Your task to perform on an android device: change alarm snooze length Image 0: 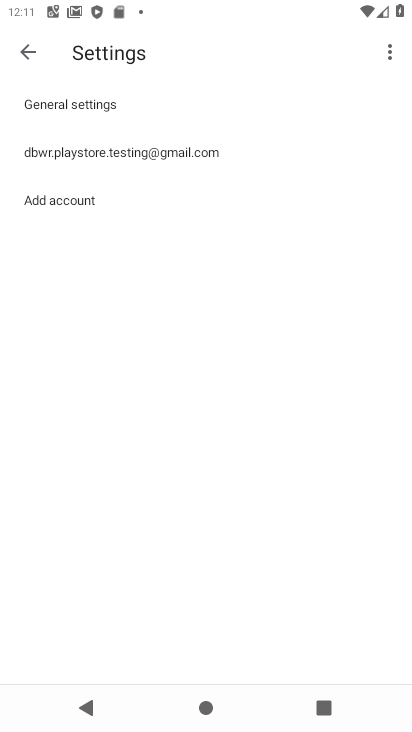
Step 0: press back button
Your task to perform on an android device: change alarm snooze length Image 1: 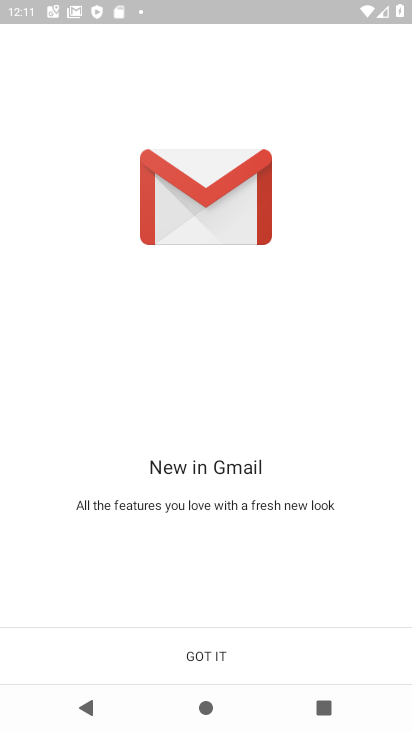
Step 1: press back button
Your task to perform on an android device: change alarm snooze length Image 2: 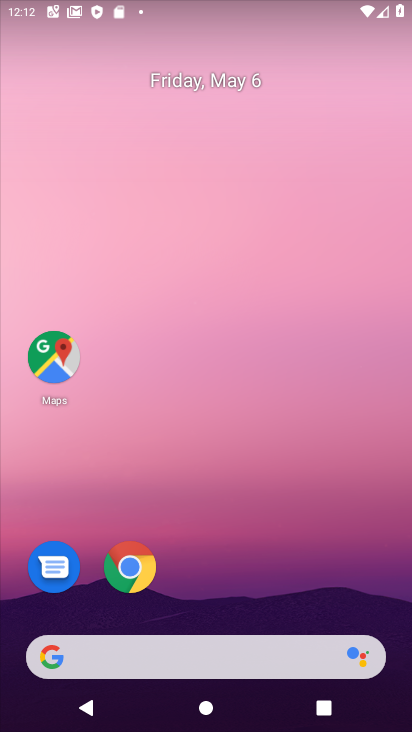
Step 2: drag from (250, 569) to (264, 0)
Your task to perform on an android device: change alarm snooze length Image 3: 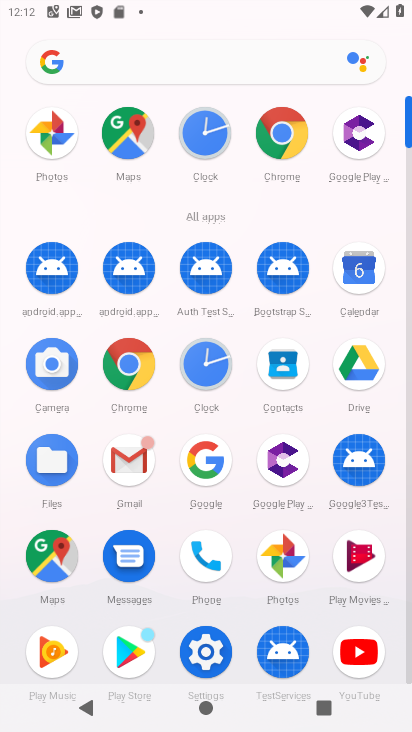
Step 3: click (207, 361)
Your task to perform on an android device: change alarm snooze length Image 4: 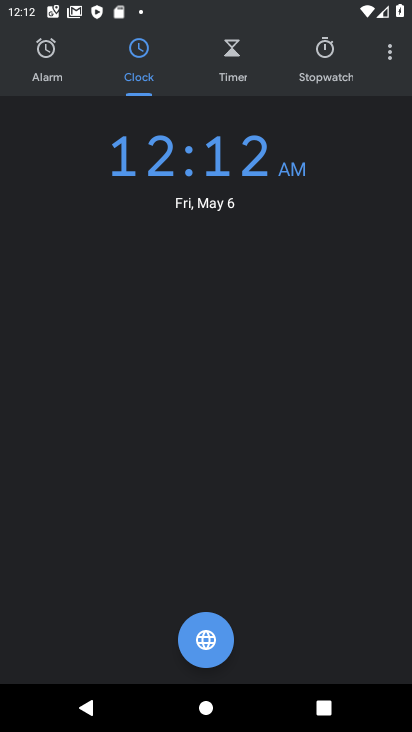
Step 4: click (391, 53)
Your task to perform on an android device: change alarm snooze length Image 5: 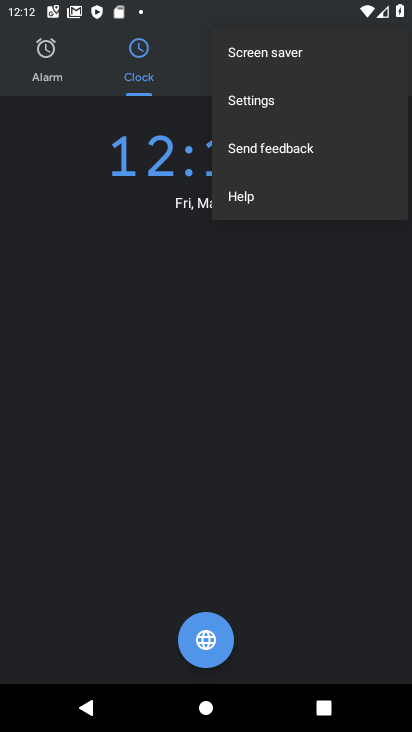
Step 5: click (267, 102)
Your task to perform on an android device: change alarm snooze length Image 6: 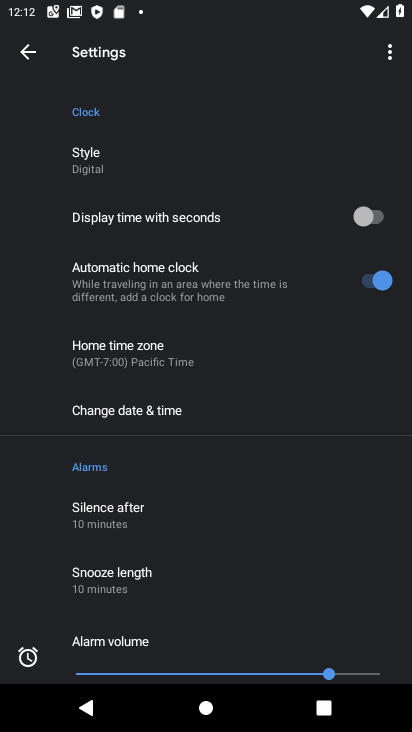
Step 6: drag from (195, 516) to (254, 388)
Your task to perform on an android device: change alarm snooze length Image 7: 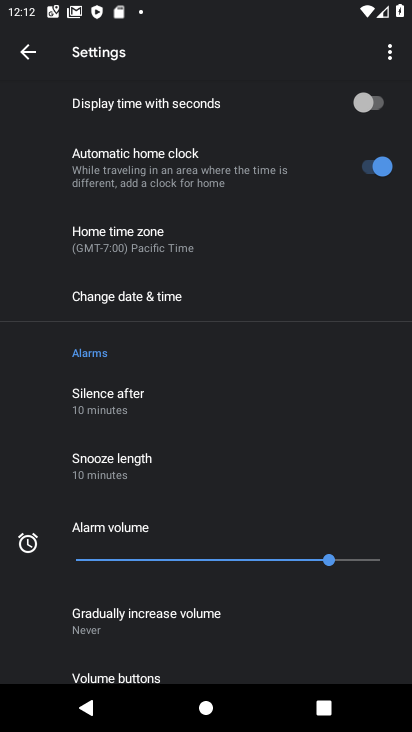
Step 7: click (147, 460)
Your task to perform on an android device: change alarm snooze length Image 8: 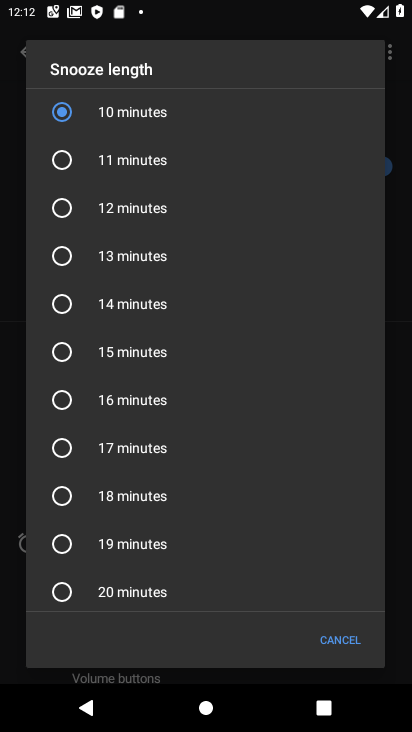
Step 8: drag from (143, 422) to (194, 313)
Your task to perform on an android device: change alarm snooze length Image 9: 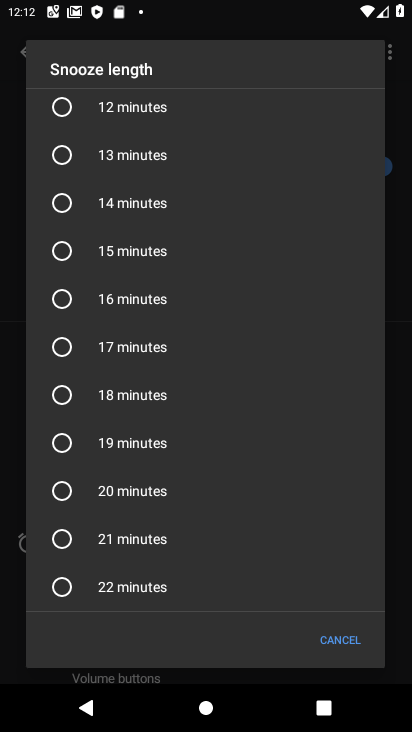
Step 9: click (63, 238)
Your task to perform on an android device: change alarm snooze length Image 10: 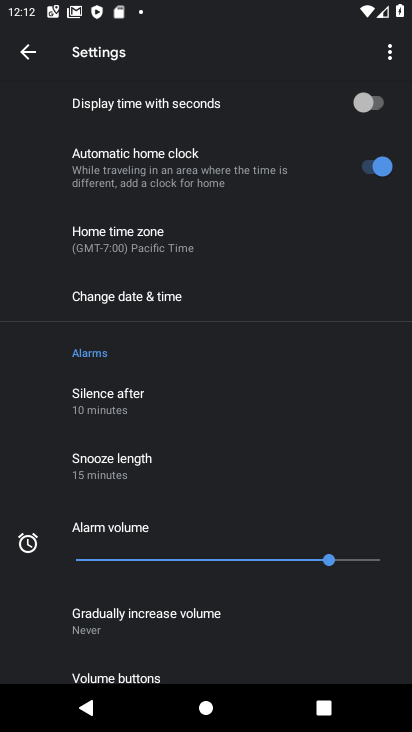
Step 10: task complete